Your task to perform on an android device: turn on translation in the chrome app Image 0: 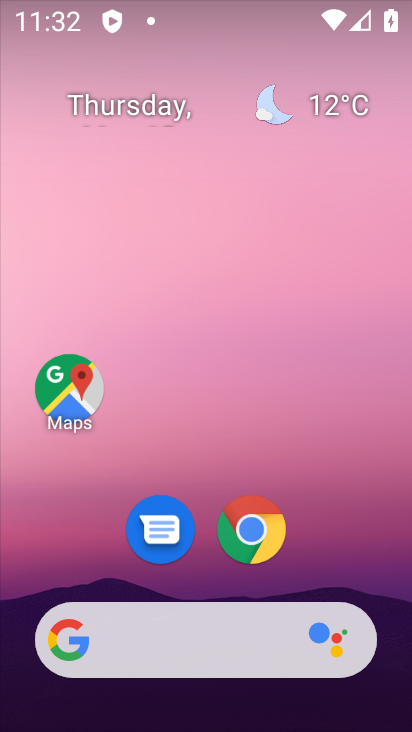
Step 0: drag from (325, 447) to (341, 199)
Your task to perform on an android device: turn on translation in the chrome app Image 1: 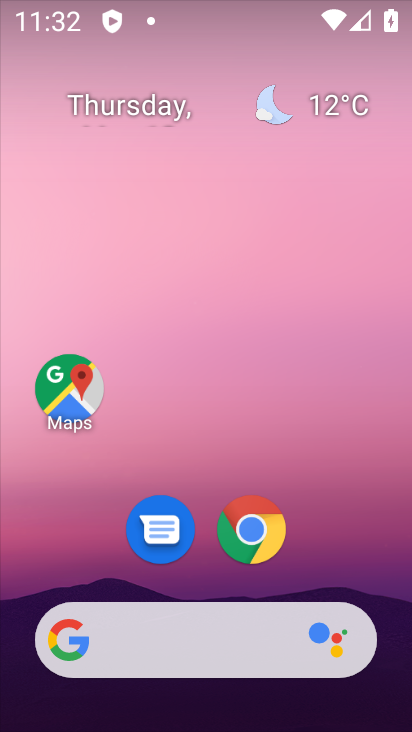
Step 1: drag from (342, 531) to (286, 205)
Your task to perform on an android device: turn on translation in the chrome app Image 2: 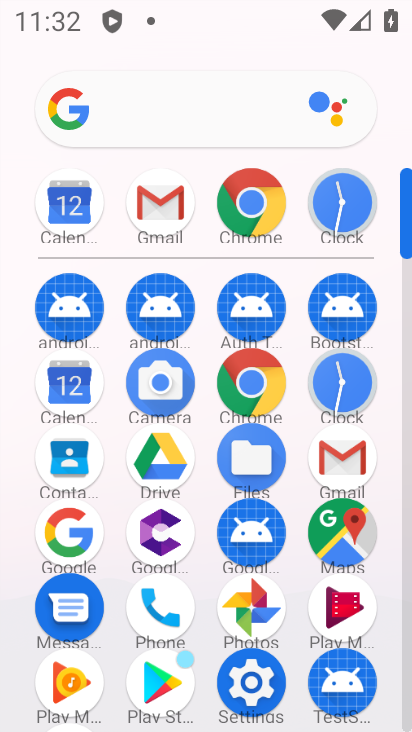
Step 2: click (247, 207)
Your task to perform on an android device: turn on translation in the chrome app Image 3: 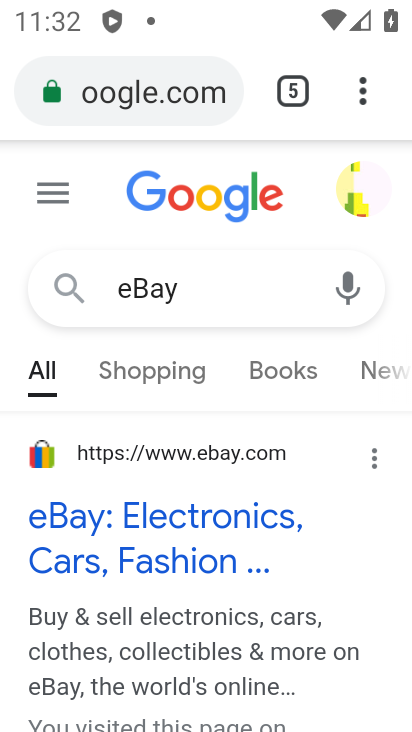
Step 3: click (364, 84)
Your task to perform on an android device: turn on translation in the chrome app Image 4: 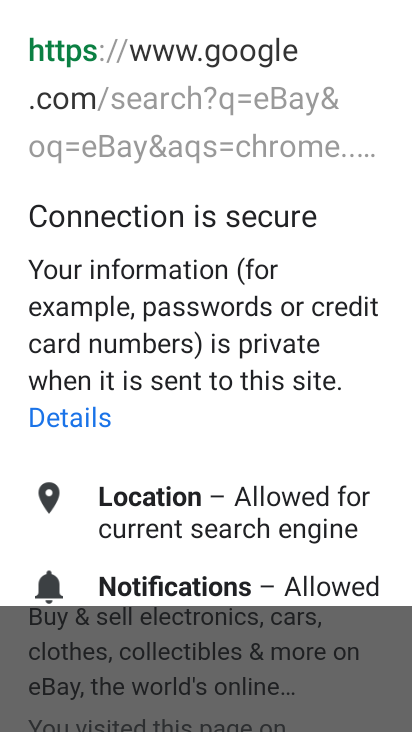
Step 4: press back button
Your task to perform on an android device: turn on translation in the chrome app Image 5: 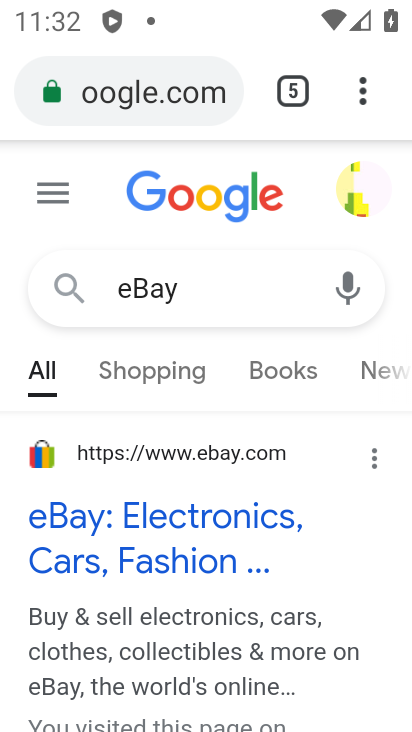
Step 5: click (381, 75)
Your task to perform on an android device: turn on translation in the chrome app Image 6: 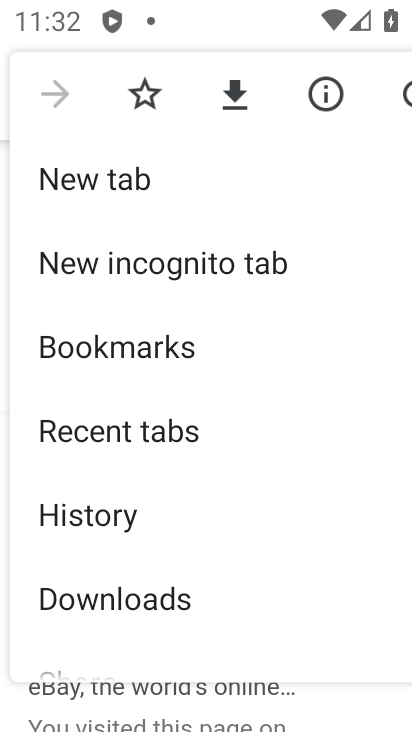
Step 6: click (195, 174)
Your task to perform on an android device: turn on translation in the chrome app Image 7: 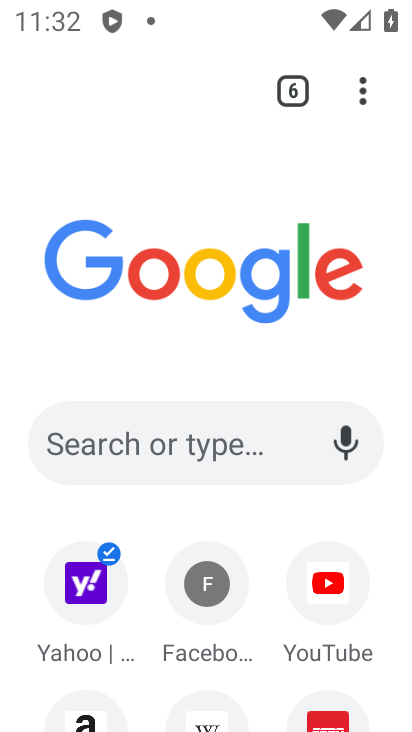
Step 7: click (346, 87)
Your task to perform on an android device: turn on translation in the chrome app Image 8: 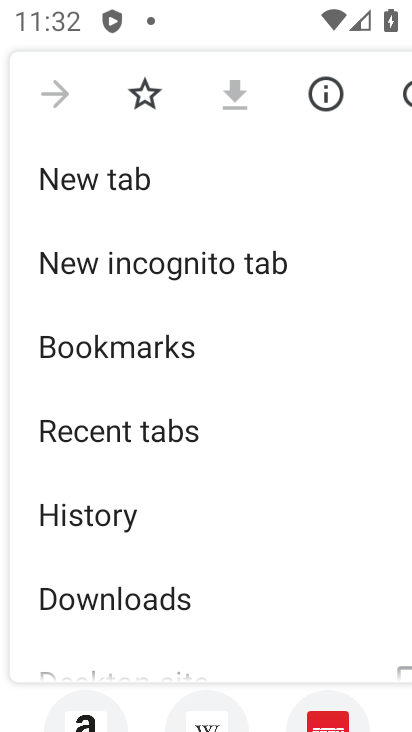
Step 8: drag from (236, 552) to (259, 224)
Your task to perform on an android device: turn on translation in the chrome app Image 9: 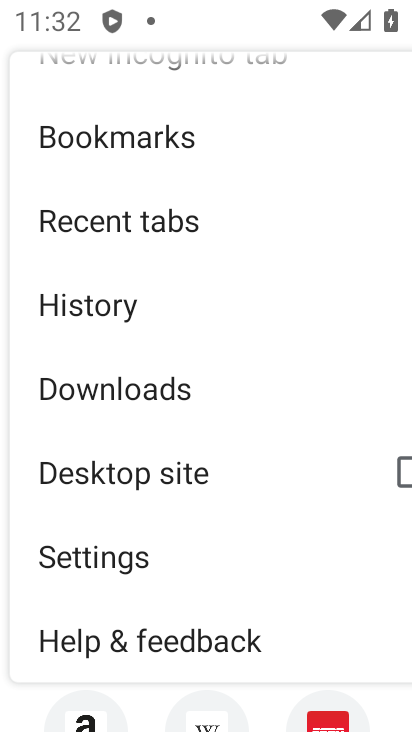
Step 9: click (153, 563)
Your task to perform on an android device: turn on translation in the chrome app Image 10: 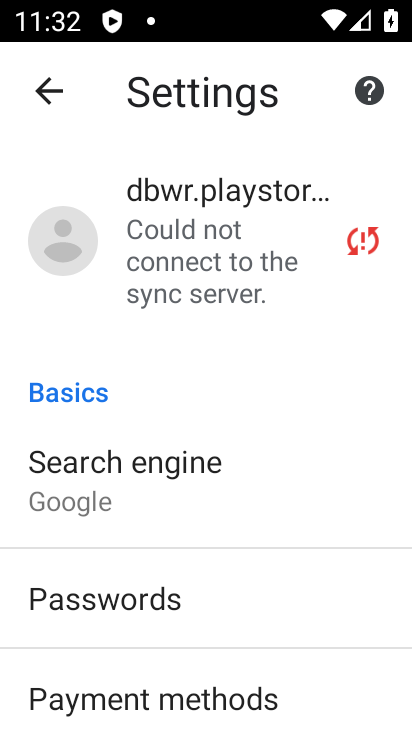
Step 10: drag from (215, 571) to (286, 207)
Your task to perform on an android device: turn on translation in the chrome app Image 11: 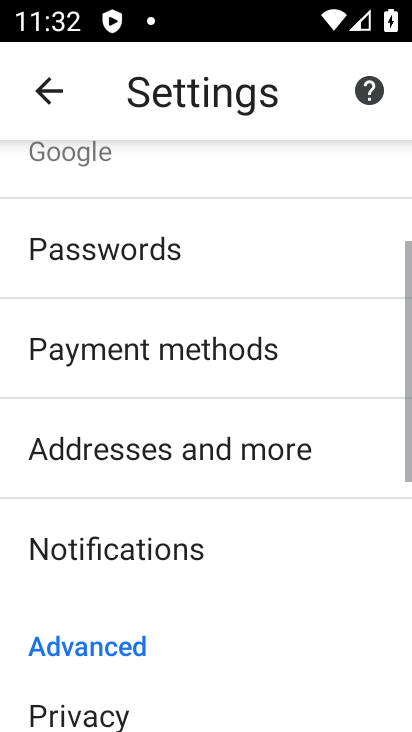
Step 11: drag from (218, 620) to (251, 248)
Your task to perform on an android device: turn on translation in the chrome app Image 12: 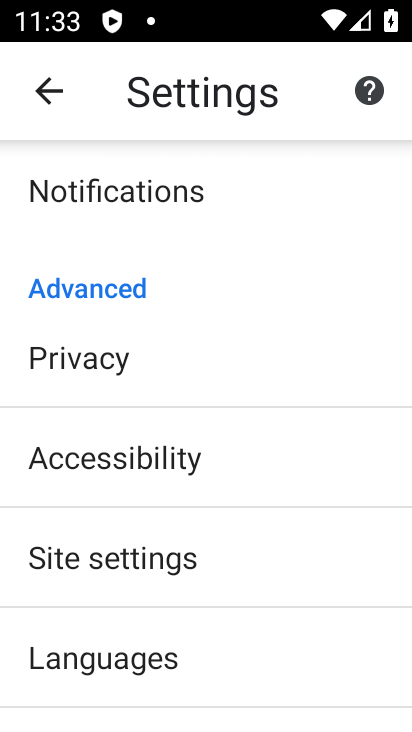
Step 12: drag from (251, 595) to (257, 125)
Your task to perform on an android device: turn on translation in the chrome app Image 13: 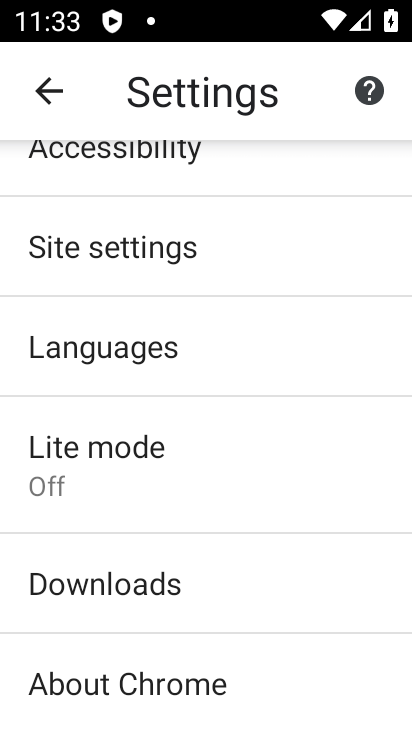
Step 13: click (184, 344)
Your task to perform on an android device: turn on translation in the chrome app Image 14: 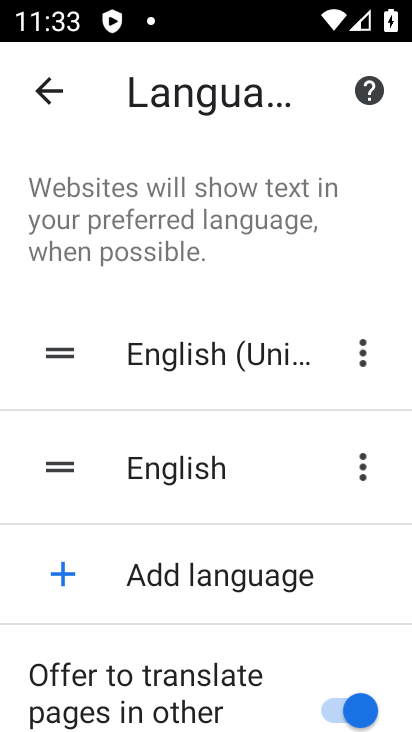
Step 14: task complete